Your task to perform on an android device: turn on notifications settings in the gmail app Image 0: 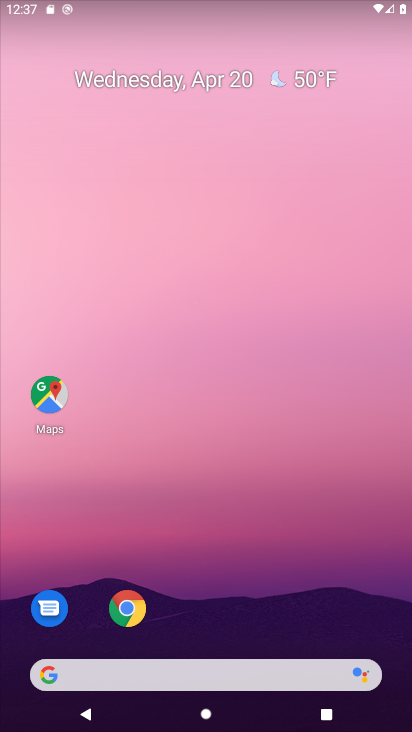
Step 0: drag from (217, 407) to (217, 215)
Your task to perform on an android device: turn on notifications settings in the gmail app Image 1: 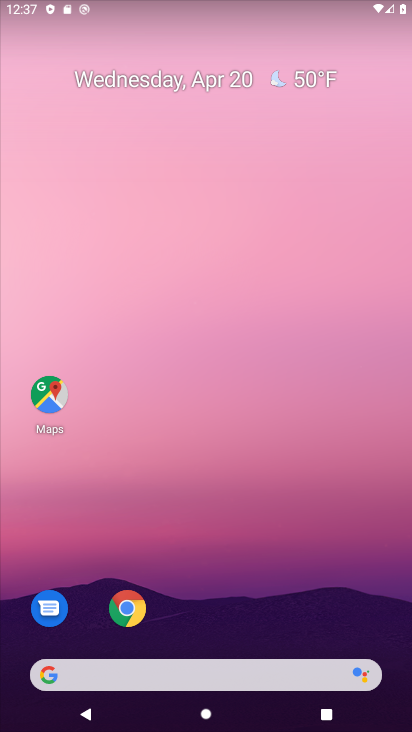
Step 1: drag from (222, 587) to (230, 226)
Your task to perform on an android device: turn on notifications settings in the gmail app Image 2: 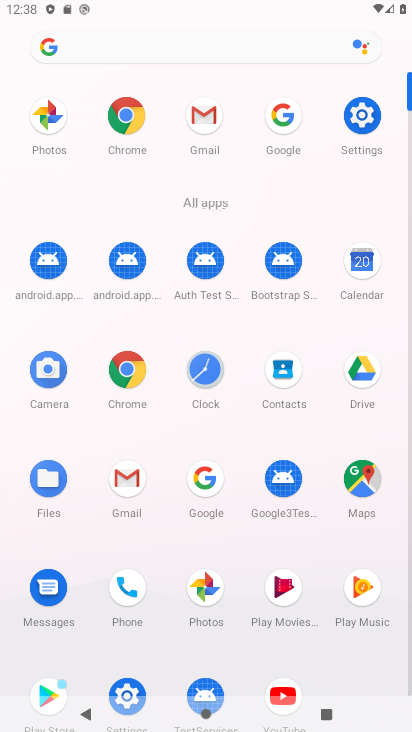
Step 2: click (198, 130)
Your task to perform on an android device: turn on notifications settings in the gmail app Image 3: 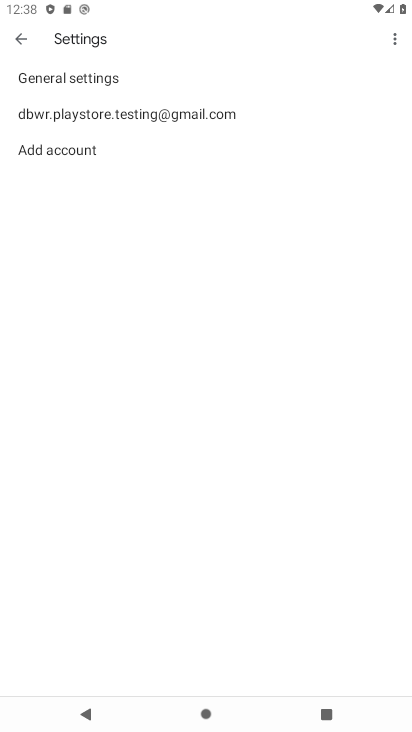
Step 3: click (119, 116)
Your task to perform on an android device: turn on notifications settings in the gmail app Image 4: 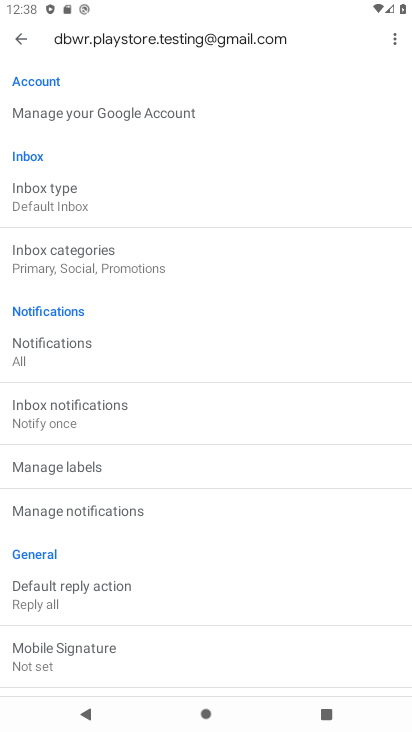
Step 4: click (144, 510)
Your task to perform on an android device: turn on notifications settings in the gmail app Image 5: 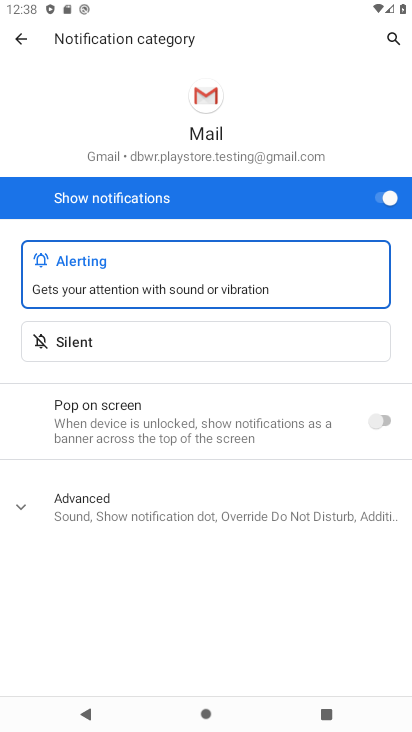
Step 5: click (168, 501)
Your task to perform on an android device: turn on notifications settings in the gmail app Image 6: 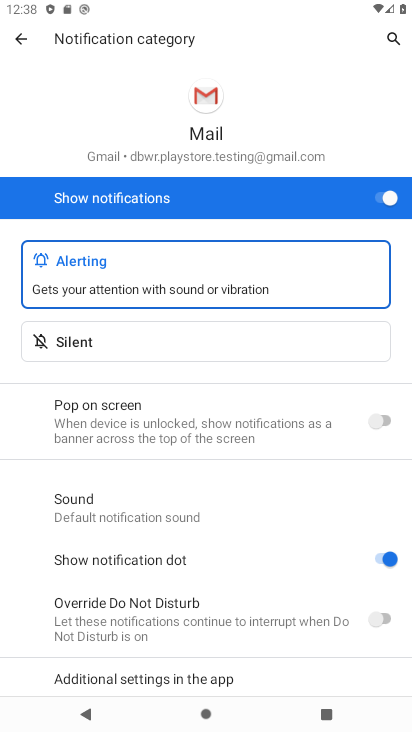
Step 6: task complete